Your task to perform on an android device: remove spam from my inbox in the gmail app Image 0: 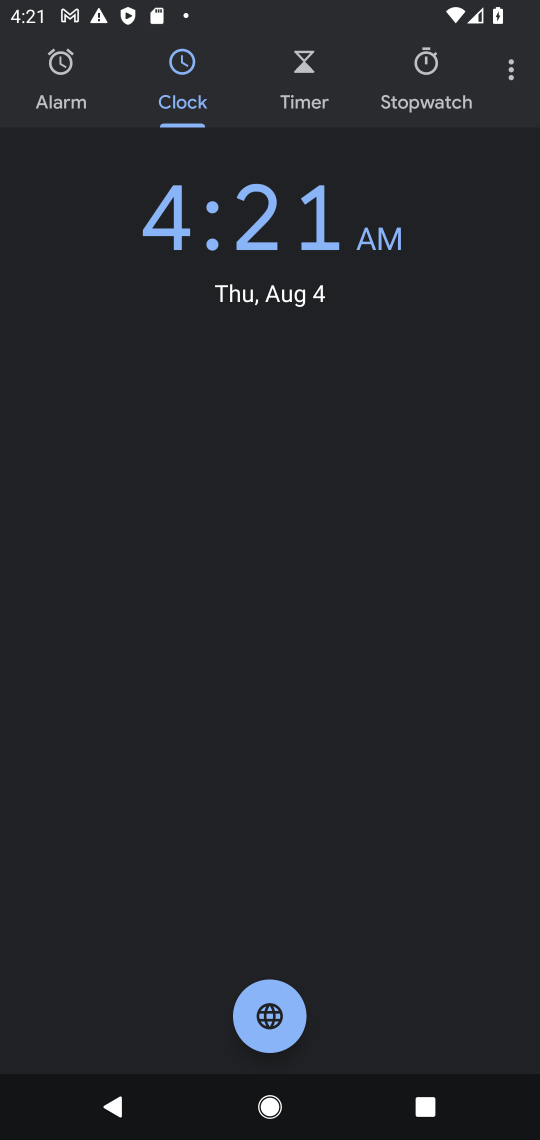
Step 0: press home button
Your task to perform on an android device: remove spam from my inbox in the gmail app Image 1: 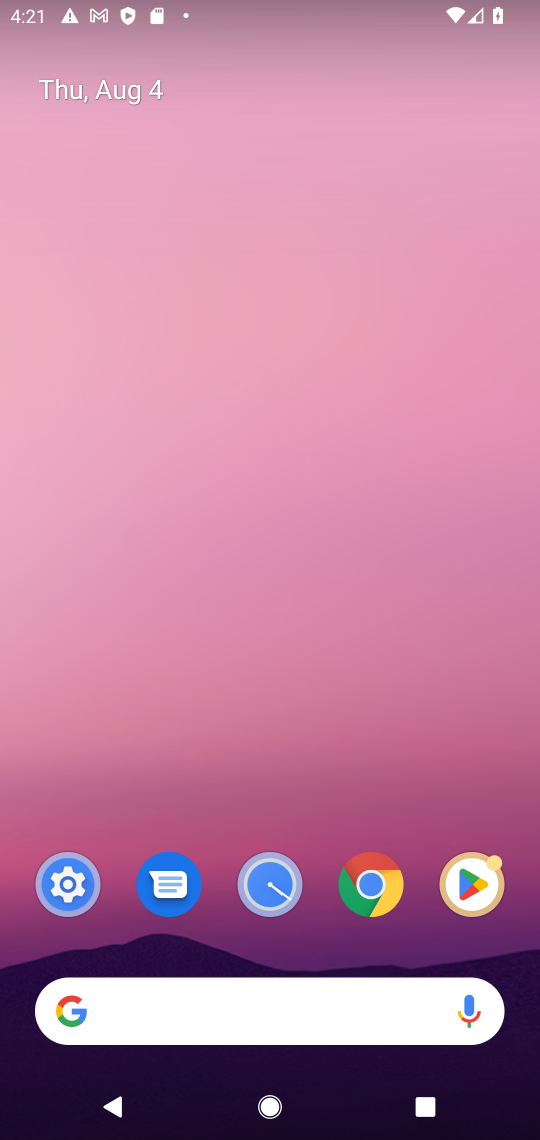
Step 1: drag from (393, 812) to (401, 265)
Your task to perform on an android device: remove spam from my inbox in the gmail app Image 2: 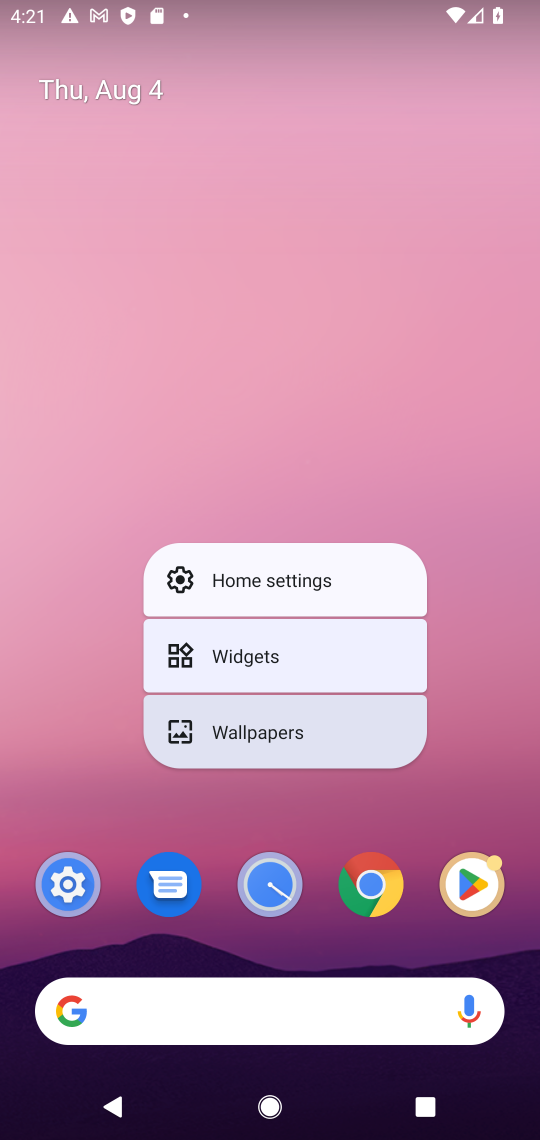
Step 2: click (471, 747)
Your task to perform on an android device: remove spam from my inbox in the gmail app Image 3: 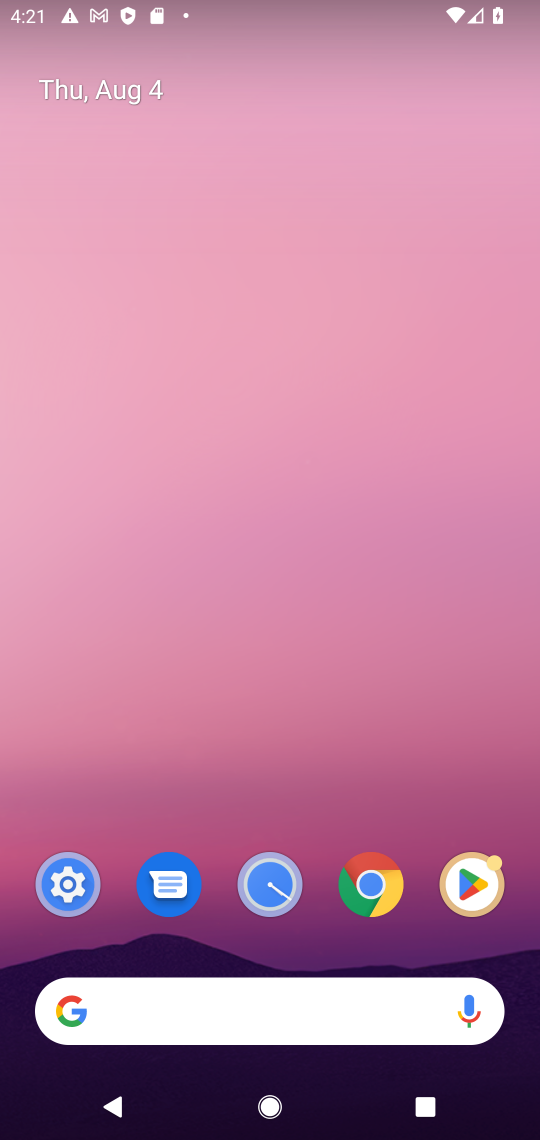
Step 3: drag from (266, 795) to (353, 302)
Your task to perform on an android device: remove spam from my inbox in the gmail app Image 4: 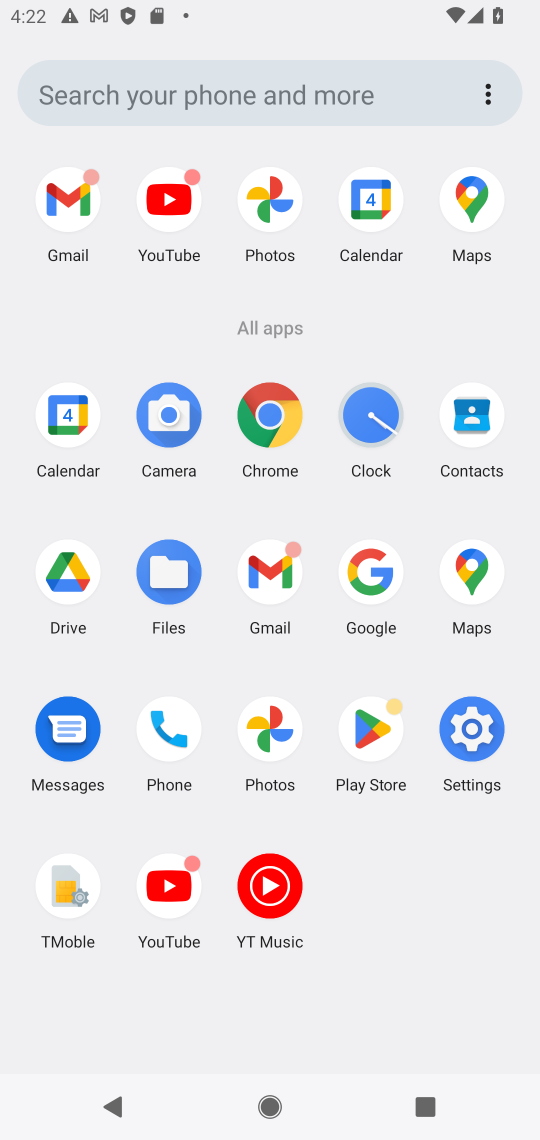
Step 4: click (284, 580)
Your task to perform on an android device: remove spam from my inbox in the gmail app Image 5: 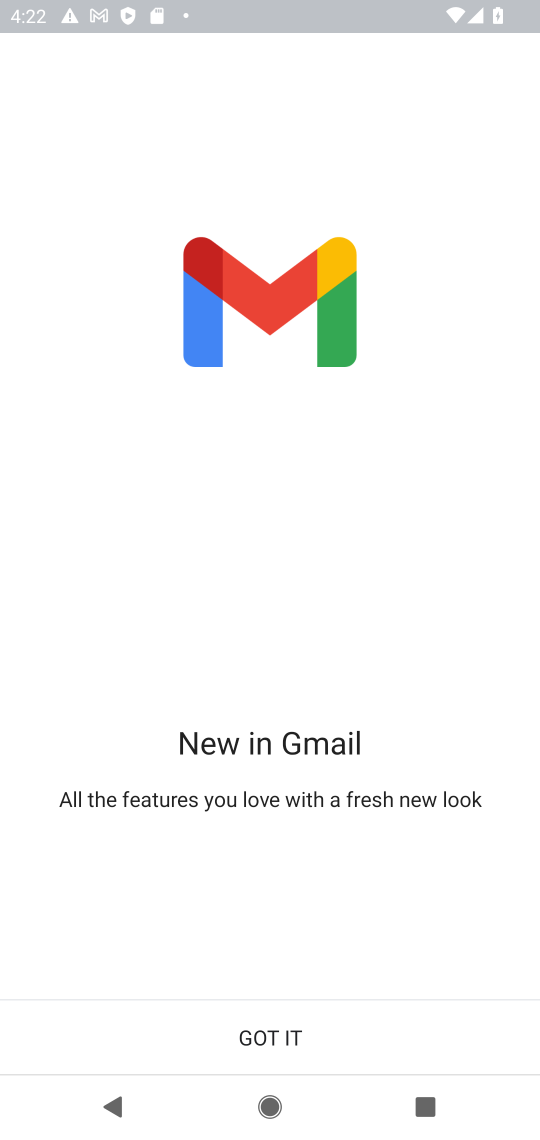
Step 5: click (258, 1026)
Your task to perform on an android device: remove spam from my inbox in the gmail app Image 6: 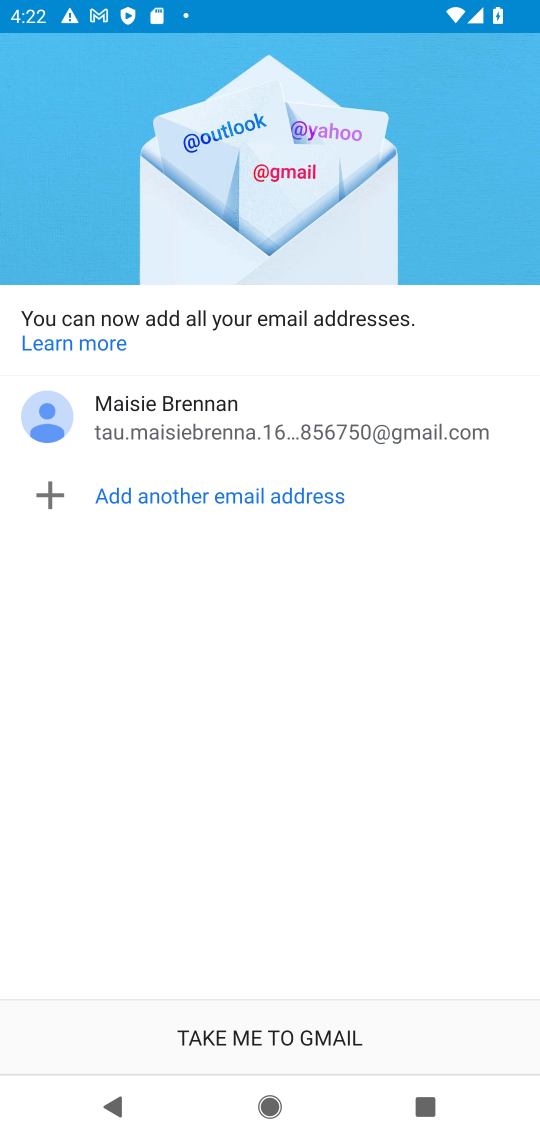
Step 6: click (286, 1034)
Your task to perform on an android device: remove spam from my inbox in the gmail app Image 7: 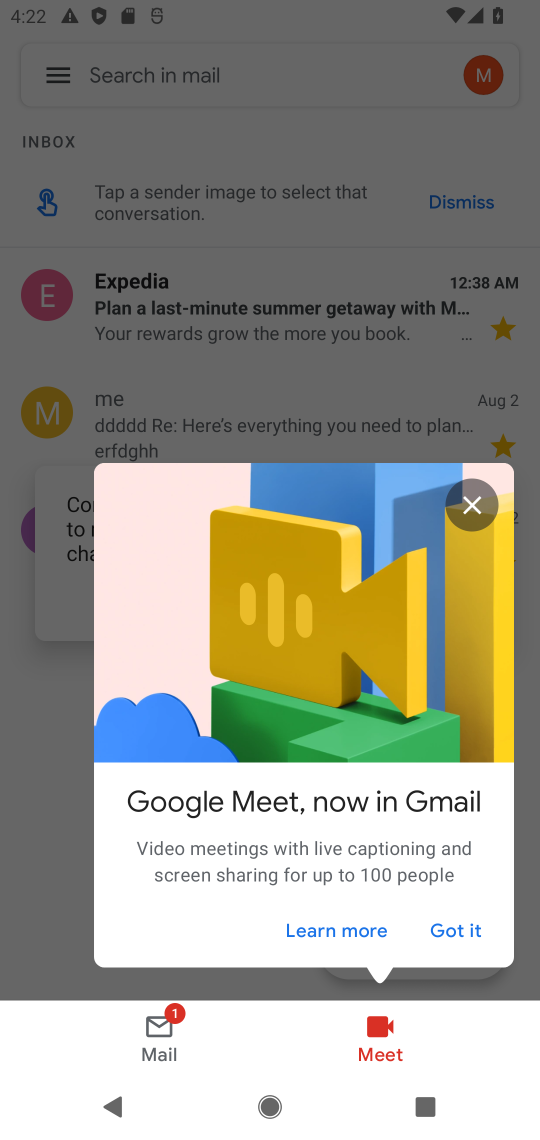
Step 7: click (60, 73)
Your task to perform on an android device: remove spam from my inbox in the gmail app Image 8: 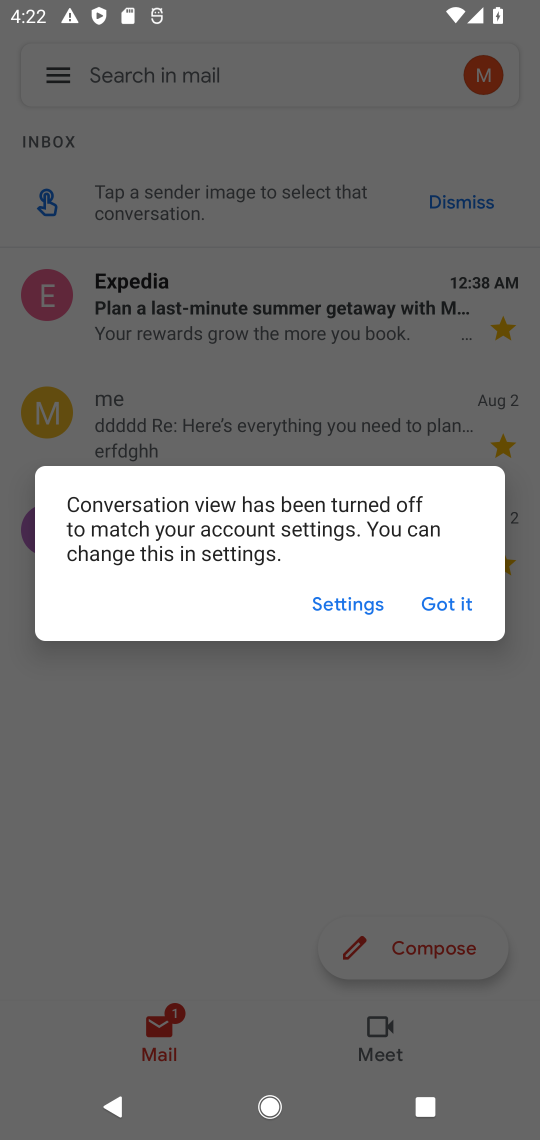
Step 8: click (441, 599)
Your task to perform on an android device: remove spam from my inbox in the gmail app Image 9: 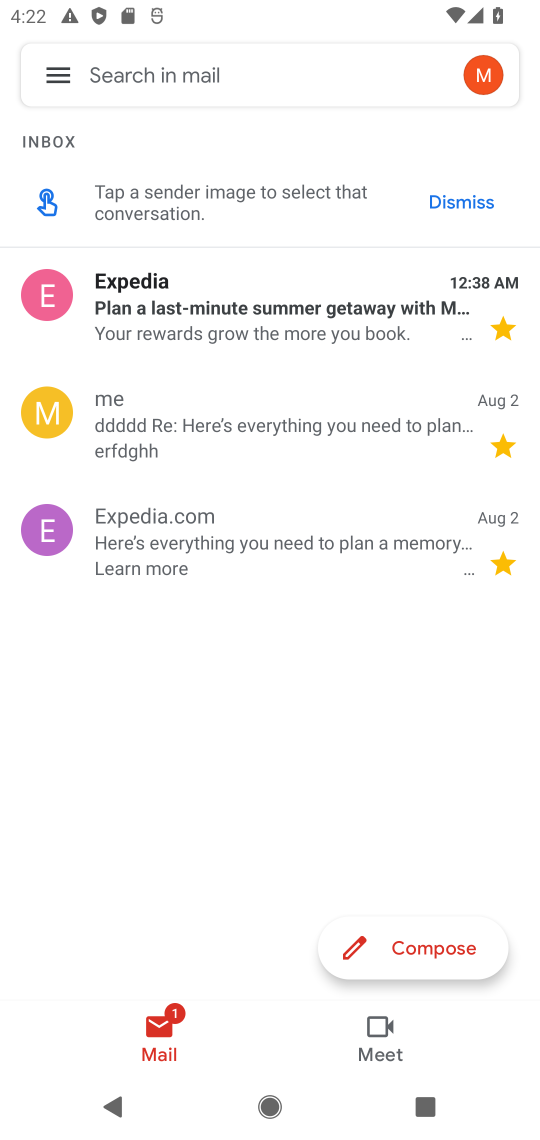
Step 9: click (66, 69)
Your task to perform on an android device: remove spam from my inbox in the gmail app Image 10: 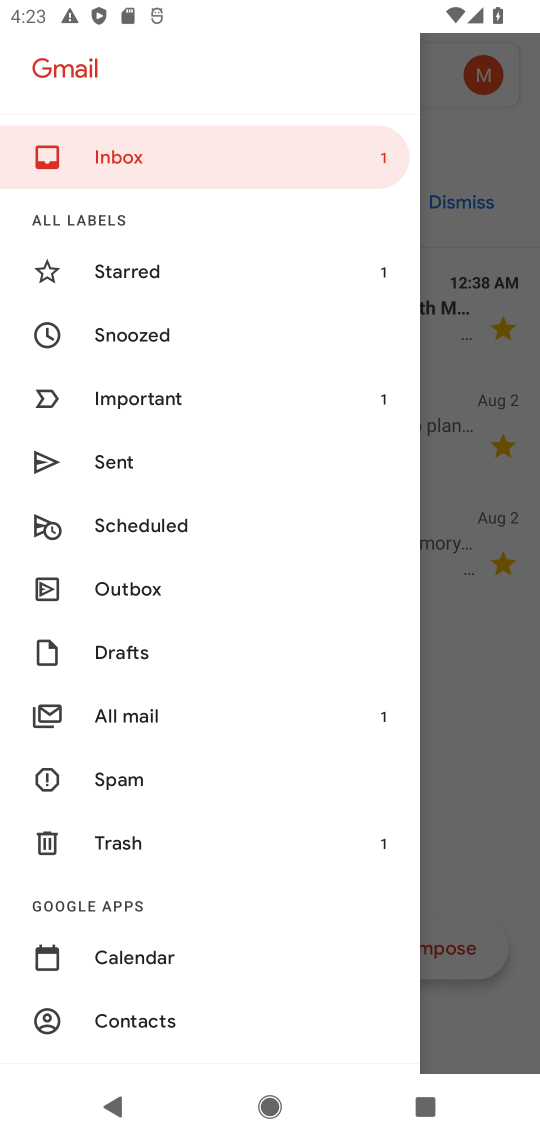
Step 10: click (151, 774)
Your task to perform on an android device: remove spam from my inbox in the gmail app Image 11: 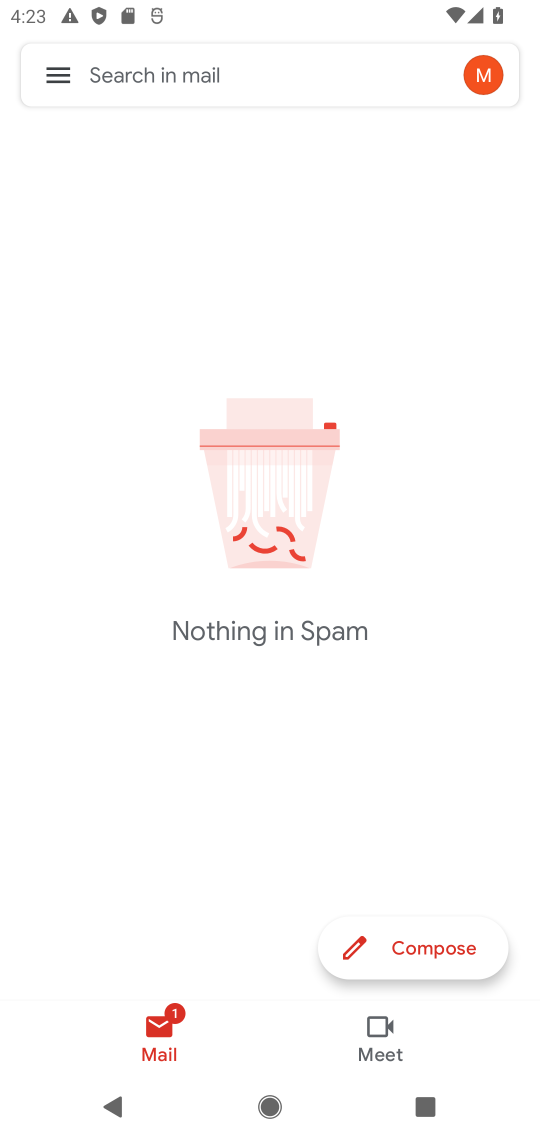
Step 11: task complete